Your task to perform on an android device: turn on airplane mode Image 0: 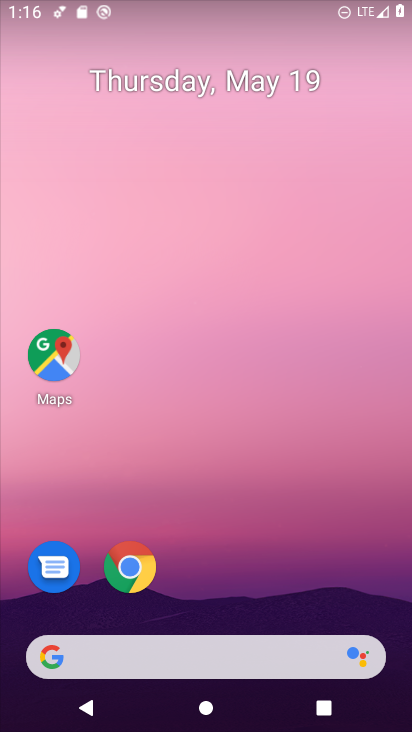
Step 0: drag from (265, 511) to (311, 21)
Your task to perform on an android device: turn on airplane mode Image 1: 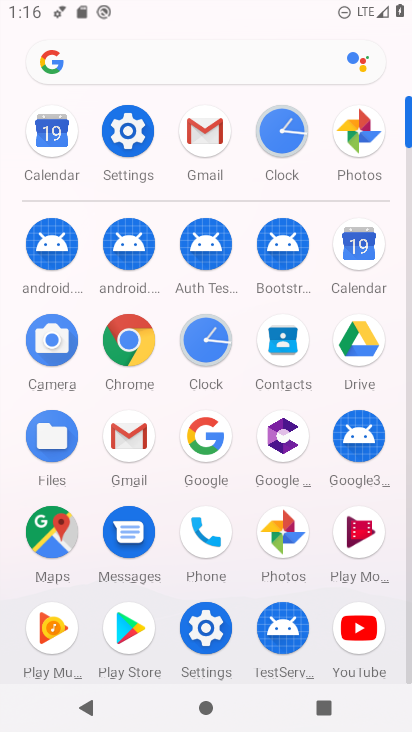
Step 1: click (130, 125)
Your task to perform on an android device: turn on airplane mode Image 2: 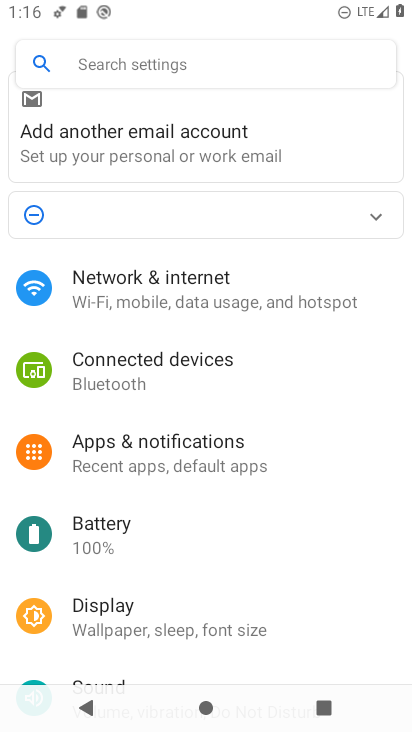
Step 2: click (162, 281)
Your task to perform on an android device: turn on airplane mode Image 3: 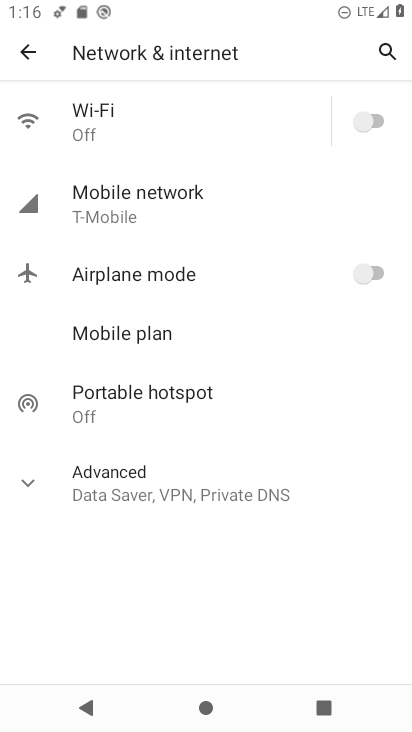
Step 3: click (376, 273)
Your task to perform on an android device: turn on airplane mode Image 4: 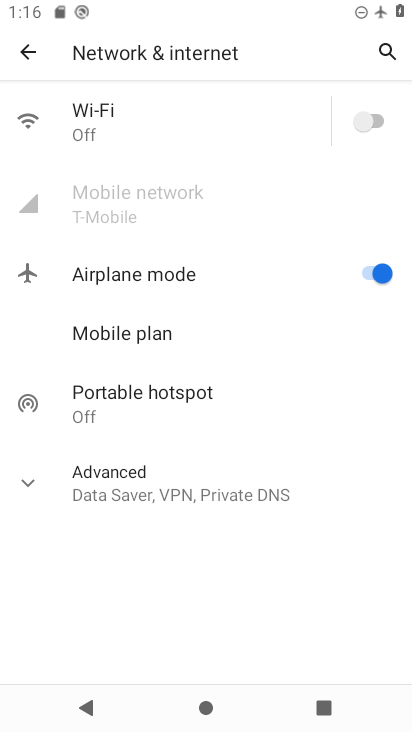
Step 4: task complete